Your task to perform on an android device: Go to accessibility settings Image 0: 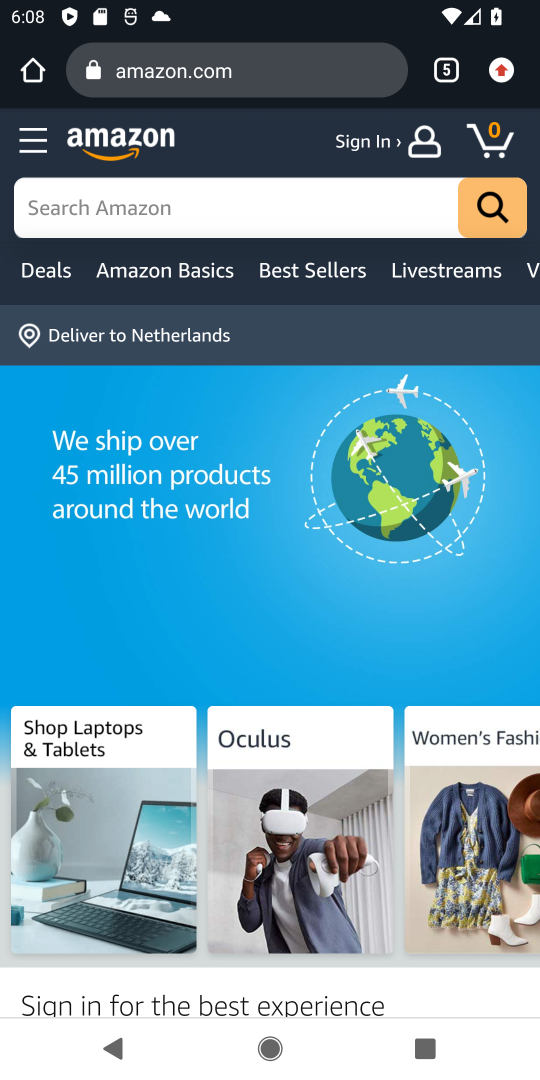
Step 0: press back button
Your task to perform on an android device: Go to accessibility settings Image 1: 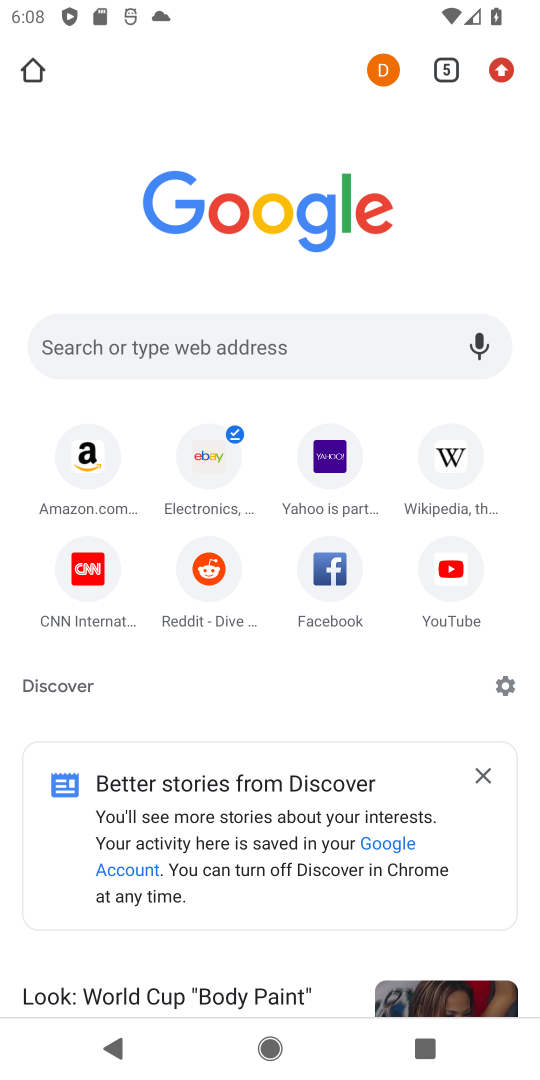
Step 1: press back button
Your task to perform on an android device: Go to accessibility settings Image 2: 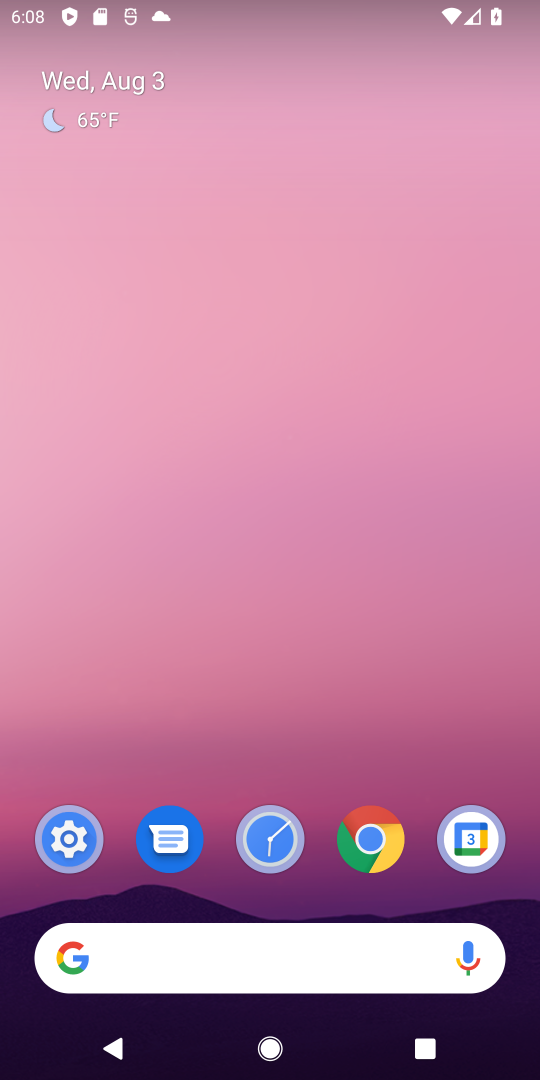
Step 2: click (61, 844)
Your task to perform on an android device: Go to accessibility settings Image 3: 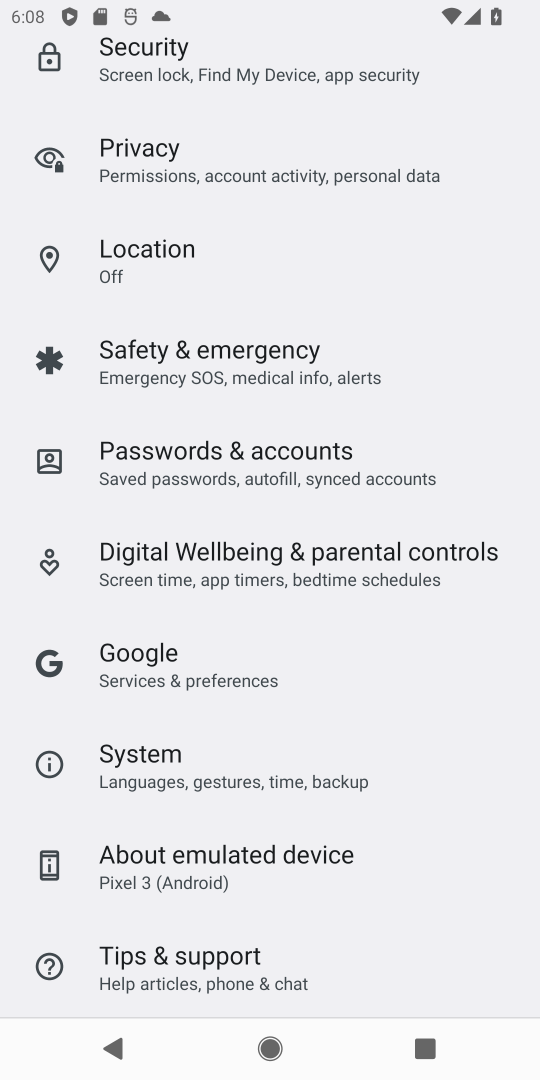
Step 3: drag from (246, 871) to (321, 57)
Your task to perform on an android device: Go to accessibility settings Image 4: 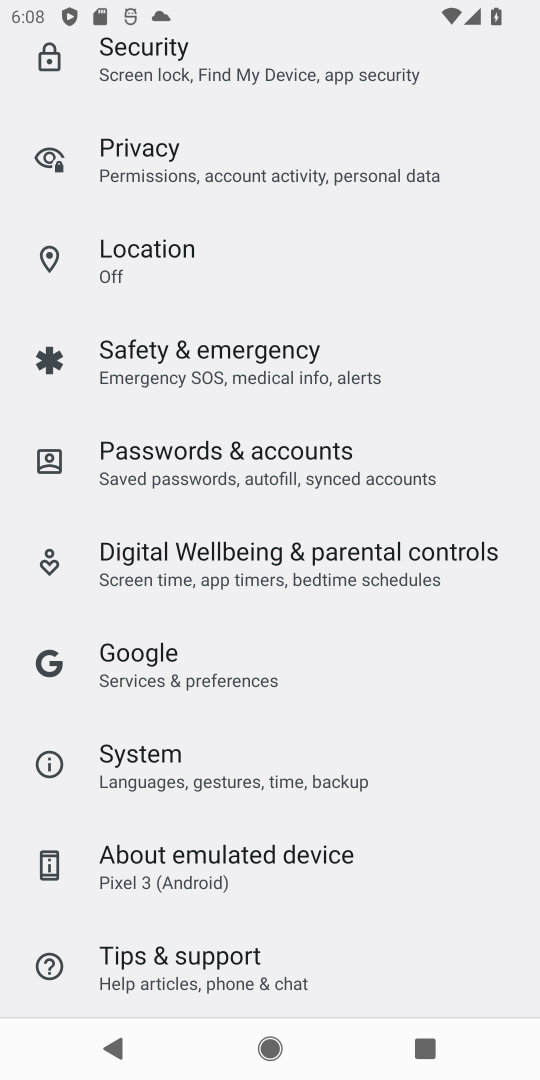
Step 4: drag from (318, 274) to (282, 999)
Your task to perform on an android device: Go to accessibility settings Image 5: 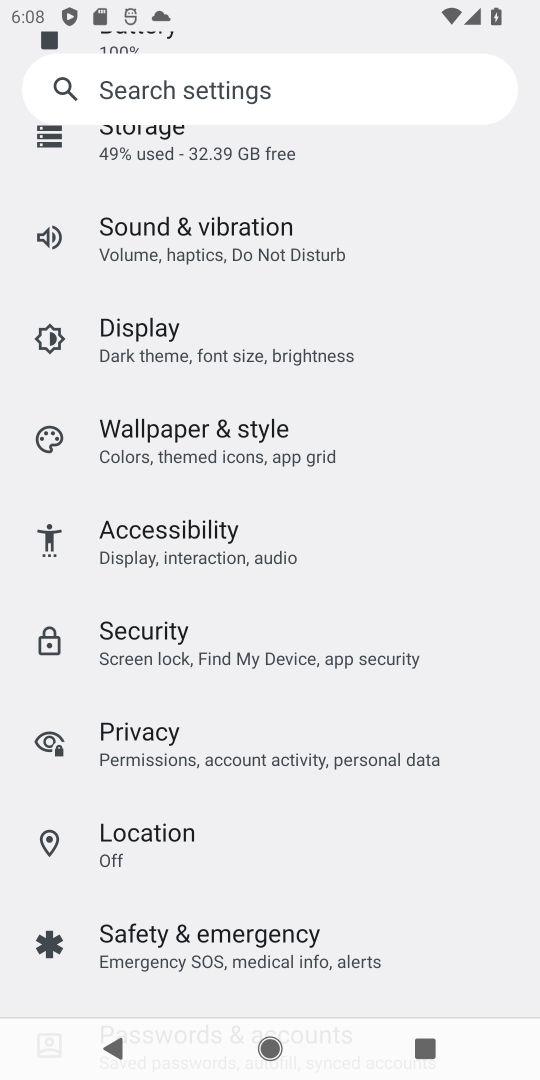
Step 5: click (201, 540)
Your task to perform on an android device: Go to accessibility settings Image 6: 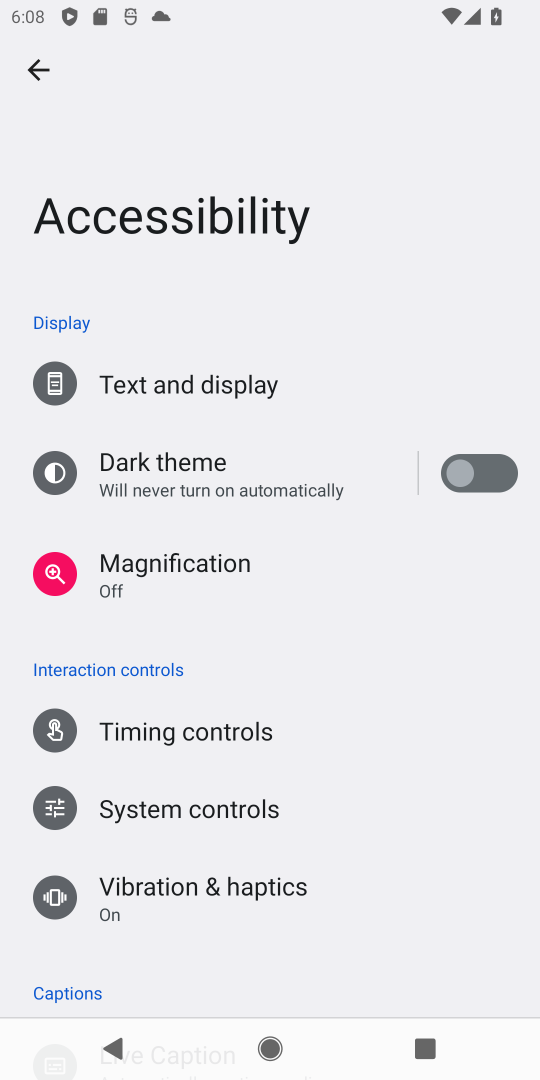
Step 6: task complete